Your task to perform on an android device: Empty the shopping cart on target. Search for "asus zenbook" on target, select the first entry, add it to the cart, then select checkout. Image 0: 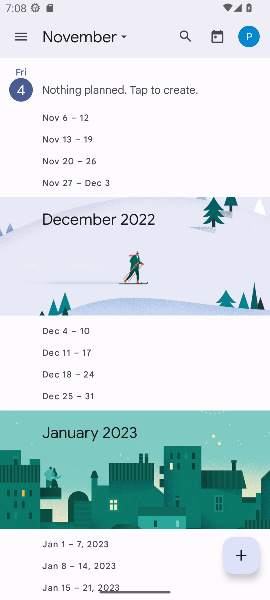
Step 0: press home button
Your task to perform on an android device: Empty the shopping cart on target. Search for "asus zenbook" on target, select the first entry, add it to the cart, then select checkout. Image 1: 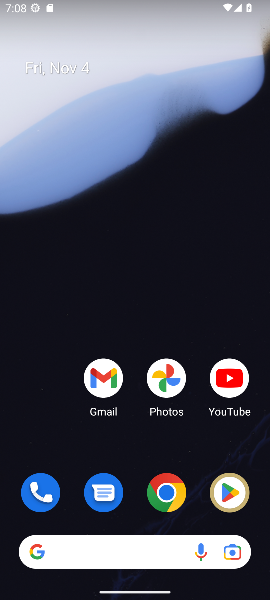
Step 1: drag from (137, 452) to (120, 33)
Your task to perform on an android device: Empty the shopping cart on target. Search for "asus zenbook" on target, select the first entry, add it to the cart, then select checkout. Image 2: 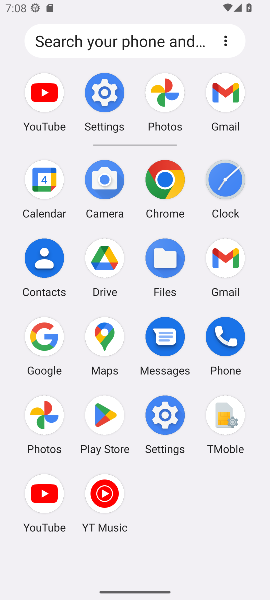
Step 2: click (167, 180)
Your task to perform on an android device: Empty the shopping cart on target. Search for "asus zenbook" on target, select the first entry, add it to the cart, then select checkout. Image 3: 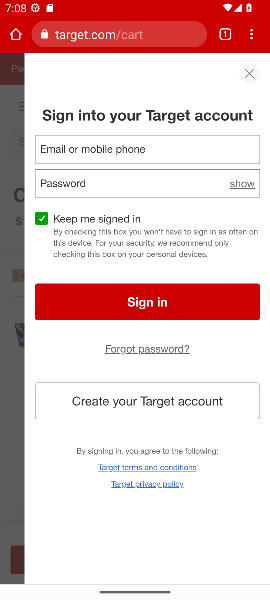
Step 3: click (245, 70)
Your task to perform on an android device: Empty the shopping cart on target. Search for "asus zenbook" on target, select the first entry, add it to the cart, then select checkout. Image 4: 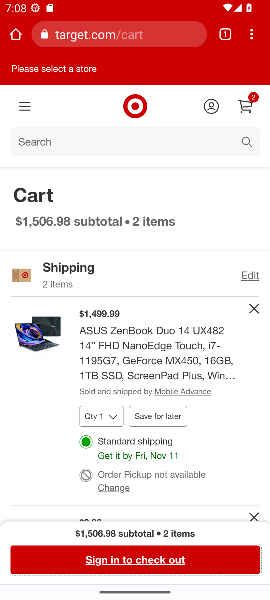
Step 4: click (257, 311)
Your task to perform on an android device: Empty the shopping cart on target. Search for "asus zenbook" on target, select the first entry, add it to the cart, then select checkout. Image 5: 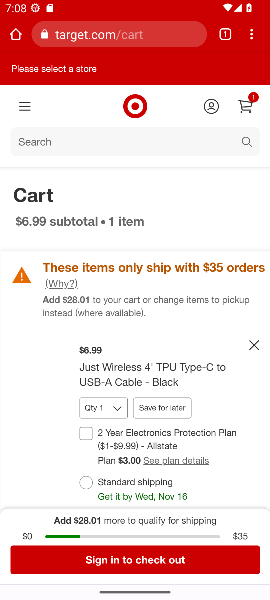
Step 5: click (255, 339)
Your task to perform on an android device: Empty the shopping cart on target. Search for "asus zenbook" on target, select the first entry, add it to the cart, then select checkout. Image 6: 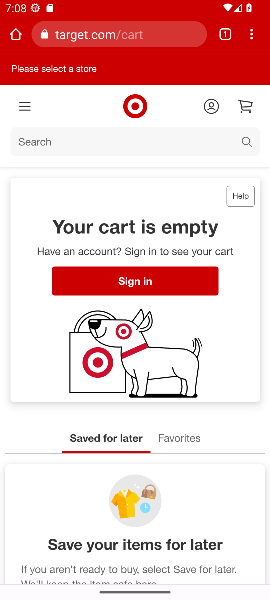
Step 6: click (129, 143)
Your task to perform on an android device: Empty the shopping cart on target. Search for "asus zenbook" on target, select the first entry, add it to the cart, then select checkout. Image 7: 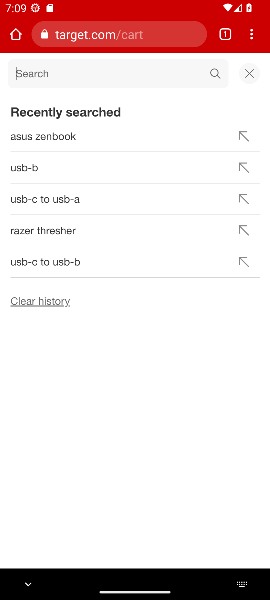
Step 7: type "asus zenbook"
Your task to perform on an android device: Empty the shopping cart on target. Search for "asus zenbook" on target, select the first entry, add it to the cart, then select checkout. Image 8: 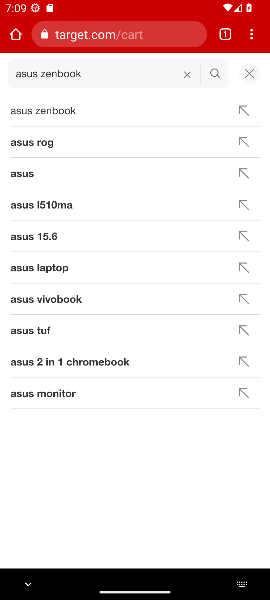
Step 8: press enter
Your task to perform on an android device: Empty the shopping cart on target. Search for "asus zenbook" on target, select the first entry, add it to the cart, then select checkout. Image 9: 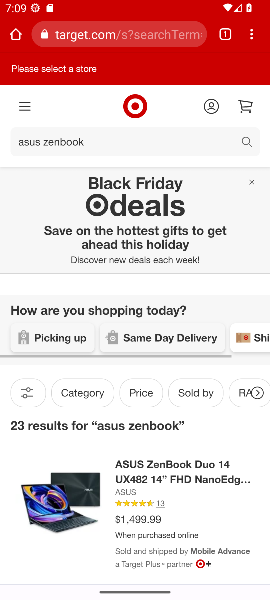
Step 9: drag from (193, 500) to (199, 343)
Your task to perform on an android device: Empty the shopping cart on target. Search for "asus zenbook" on target, select the first entry, add it to the cart, then select checkout. Image 10: 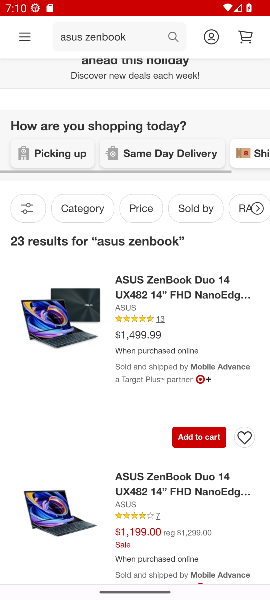
Step 10: click (197, 437)
Your task to perform on an android device: Empty the shopping cart on target. Search for "asus zenbook" on target, select the first entry, add it to the cart, then select checkout. Image 11: 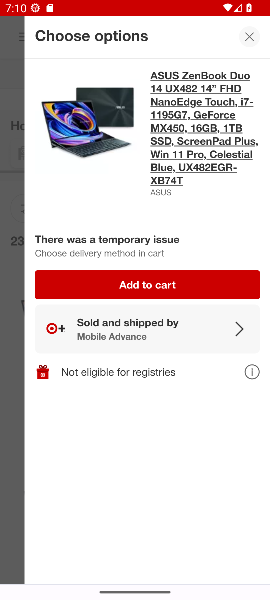
Step 11: click (182, 287)
Your task to perform on an android device: Empty the shopping cart on target. Search for "asus zenbook" on target, select the first entry, add it to the cart, then select checkout. Image 12: 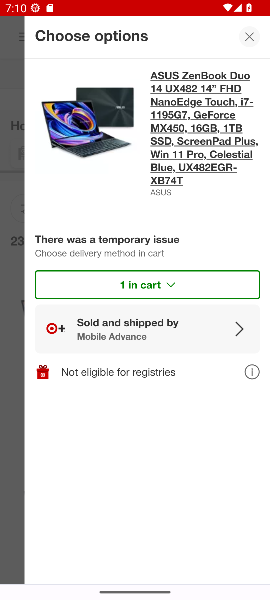
Step 12: click (250, 37)
Your task to perform on an android device: Empty the shopping cart on target. Search for "asus zenbook" on target, select the first entry, add it to the cart, then select checkout. Image 13: 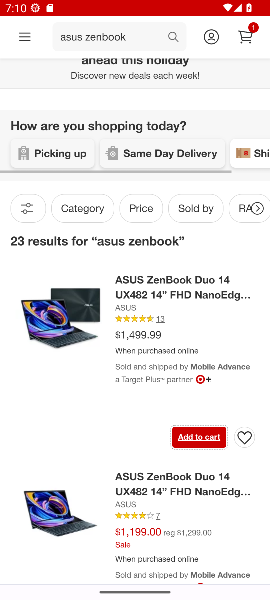
Step 13: click (245, 31)
Your task to perform on an android device: Empty the shopping cart on target. Search for "asus zenbook" on target, select the first entry, add it to the cart, then select checkout. Image 14: 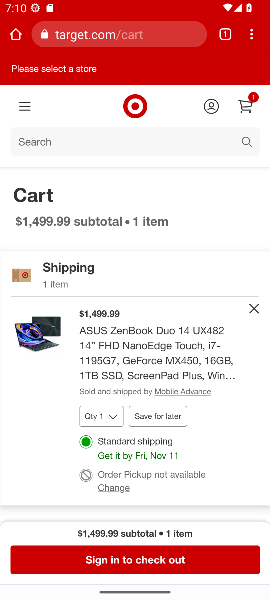
Step 14: click (180, 559)
Your task to perform on an android device: Empty the shopping cart on target. Search for "asus zenbook" on target, select the first entry, add it to the cart, then select checkout. Image 15: 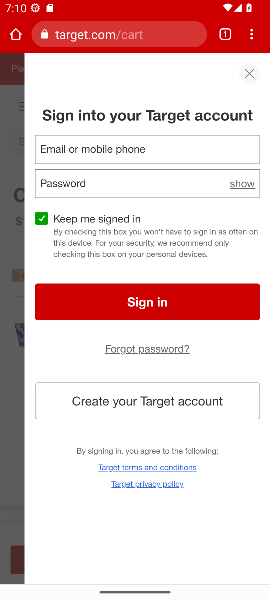
Step 15: task complete